Your task to perform on an android device: turn smart compose on in the gmail app Image 0: 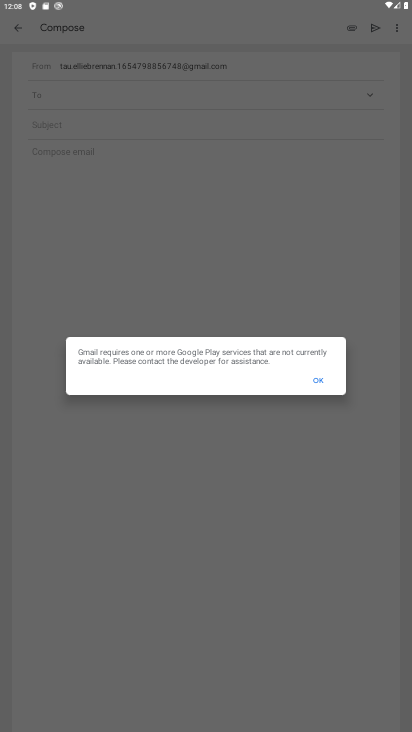
Step 0: press home button
Your task to perform on an android device: turn smart compose on in the gmail app Image 1: 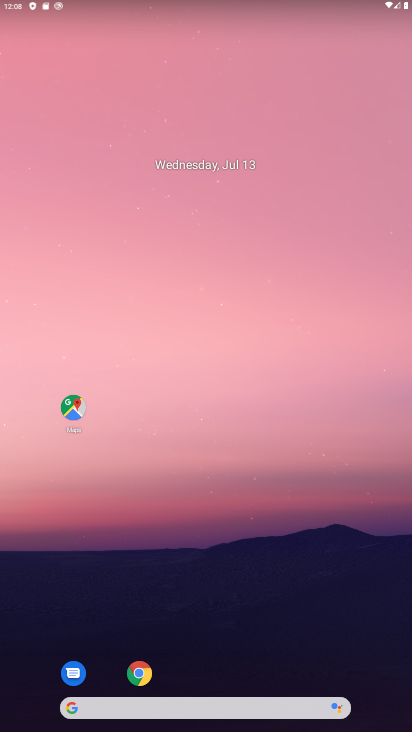
Step 1: drag from (289, 618) to (270, 255)
Your task to perform on an android device: turn smart compose on in the gmail app Image 2: 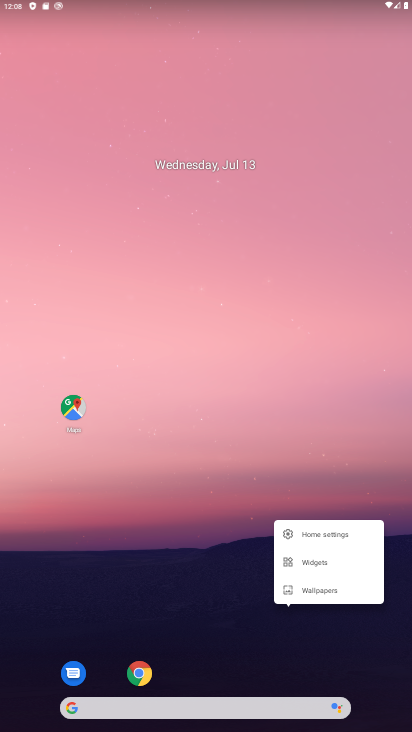
Step 2: click (230, 305)
Your task to perform on an android device: turn smart compose on in the gmail app Image 3: 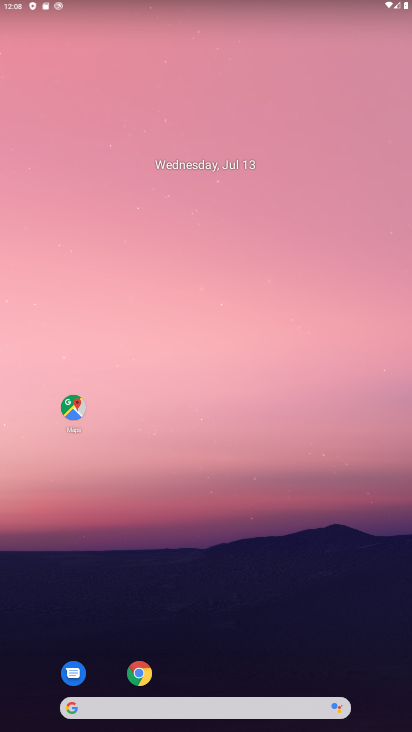
Step 3: drag from (220, 660) to (181, 140)
Your task to perform on an android device: turn smart compose on in the gmail app Image 4: 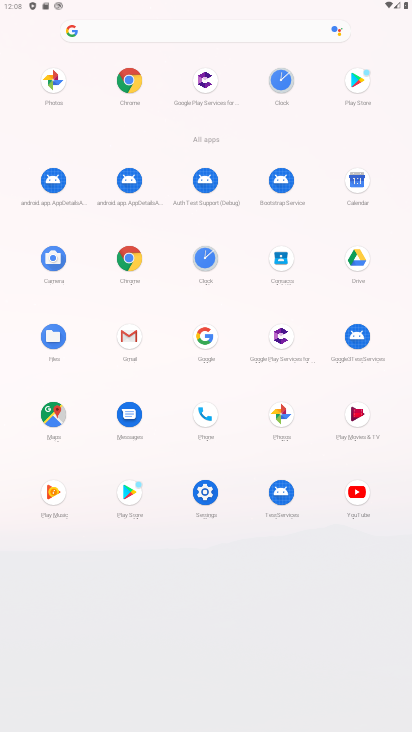
Step 4: click (211, 476)
Your task to perform on an android device: turn smart compose on in the gmail app Image 5: 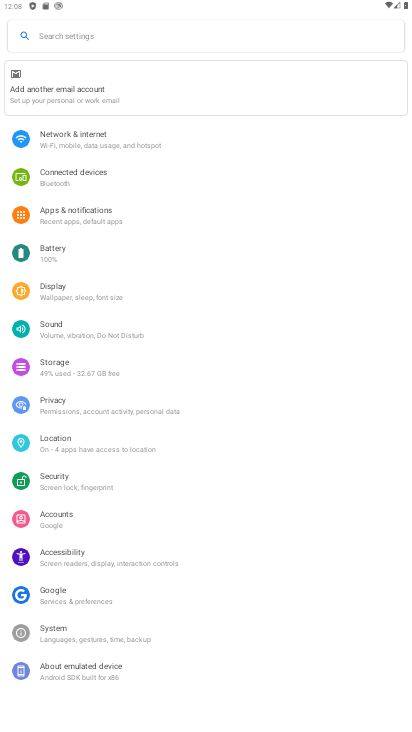
Step 5: press home button
Your task to perform on an android device: turn smart compose on in the gmail app Image 6: 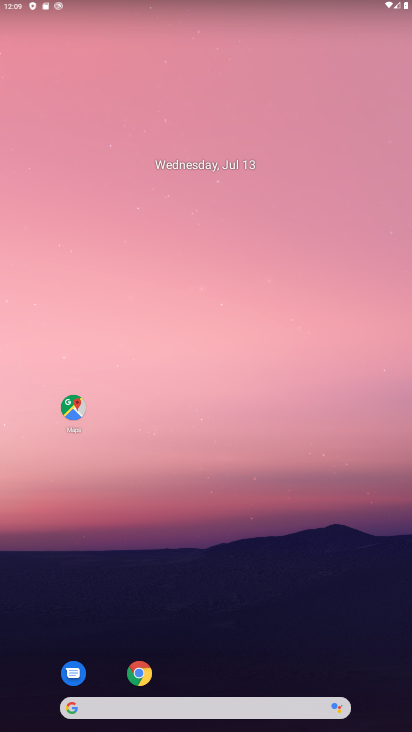
Step 6: drag from (278, 637) to (279, 70)
Your task to perform on an android device: turn smart compose on in the gmail app Image 7: 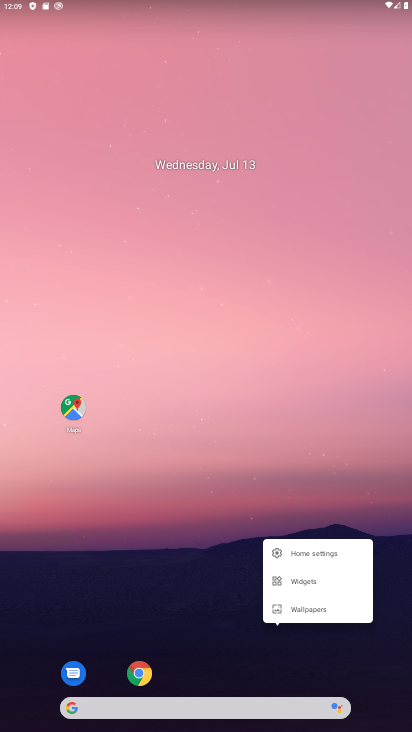
Step 7: click (204, 427)
Your task to perform on an android device: turn smart compose on in the gmail app Image 8: 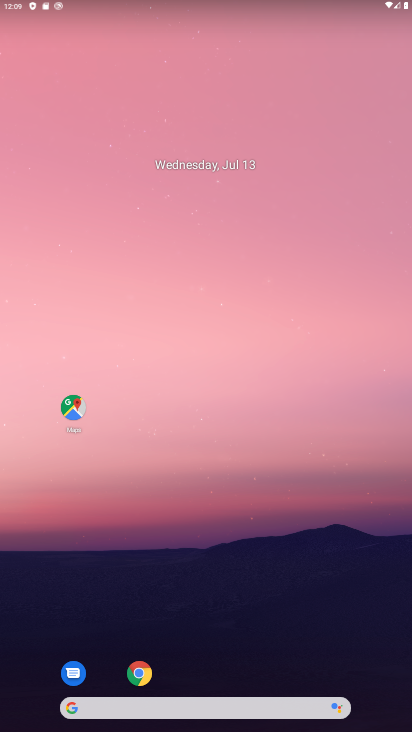
Step 8: drag from (265, 645) to (280, 249)
Your task to perform on an android device: turn smart compose on in the gmail app Image 9: 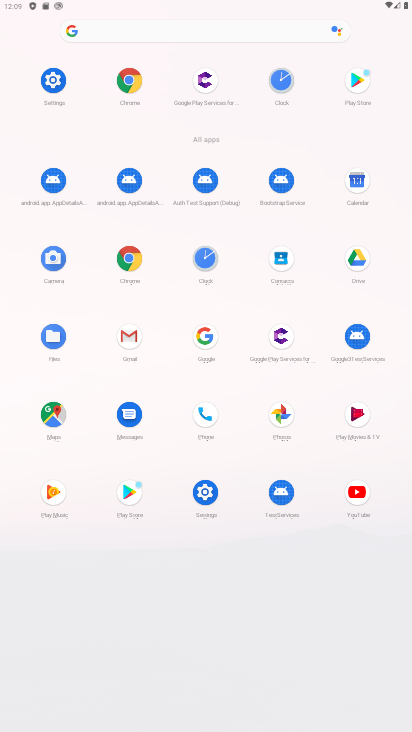
Step 9: click (127, 362)
Your task to perform on an android device: turn smart compose on in the gmail app Image 10: 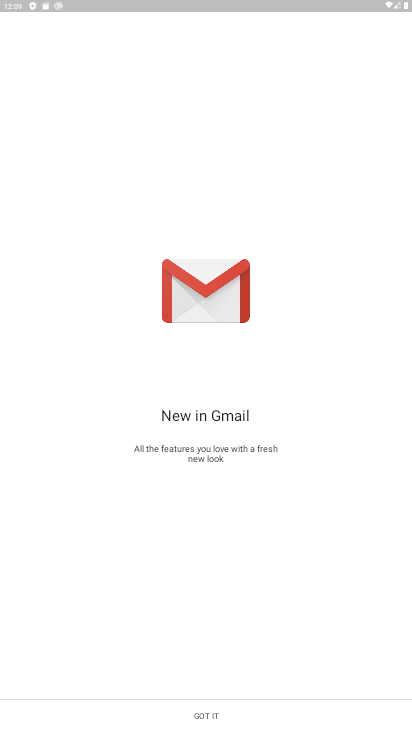
Step 10: click (227, 713)
Your task to perform on an android device: turn smart compose on in the gmail app Image 11: 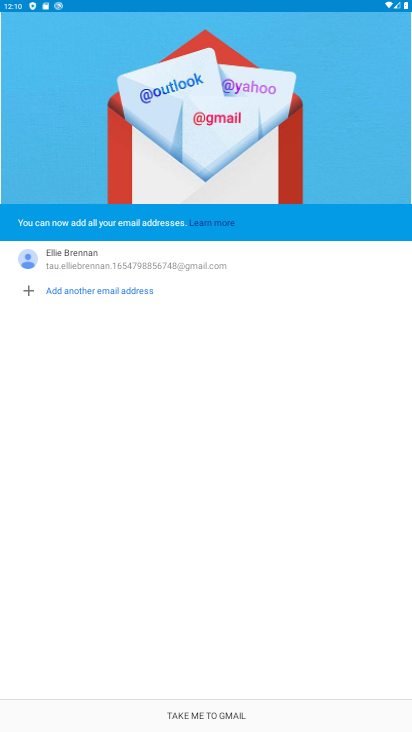
Step 11: click (237, 703)
Your task to perform on an android device: turn smart compose on in the gmail app Image 12: 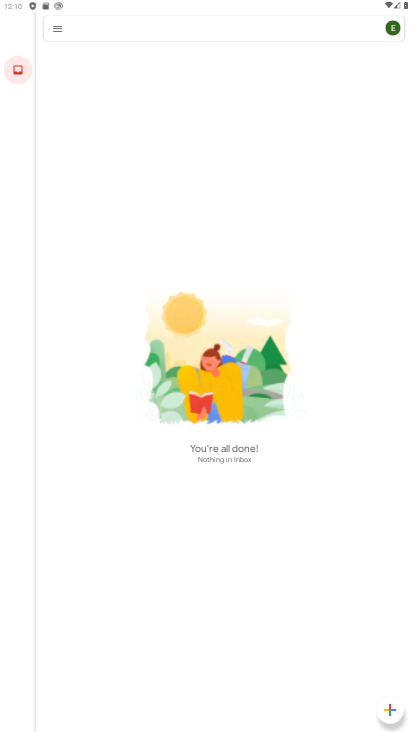
Step 12: click (54, 32)
Your task to perform on an android device: turn smart compose on in the gmail app Image 13: 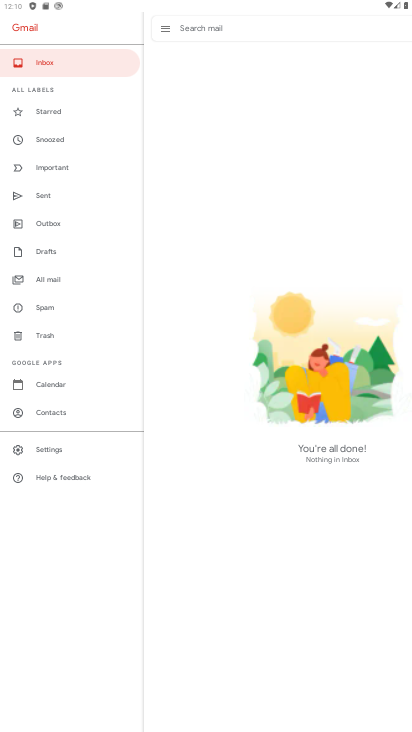
Step 13: click (60, 456)
Your task to perform on an android device: turn smart compose on in the gmail app Image 14: 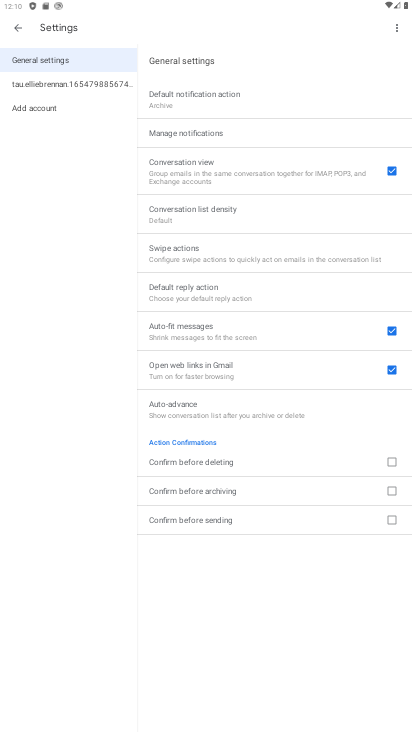
Step 14: click (87, 97)
Your task to perform on an android device: turn smart compose on in the gmail app Image 15: 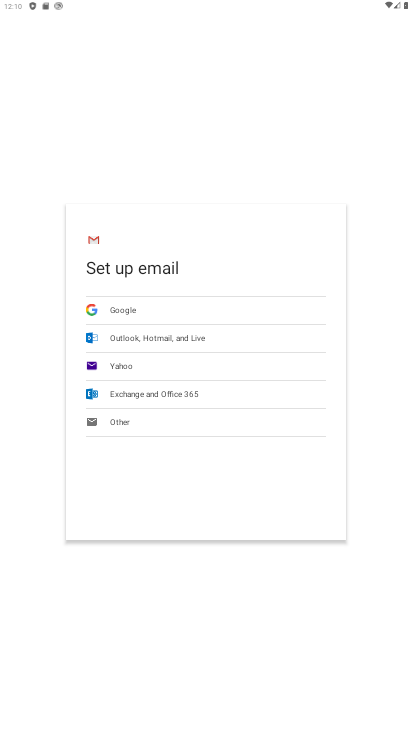
Step 15: press back button
Your task to perform on an android device: turn smart compose on in the gmail app Image 16: 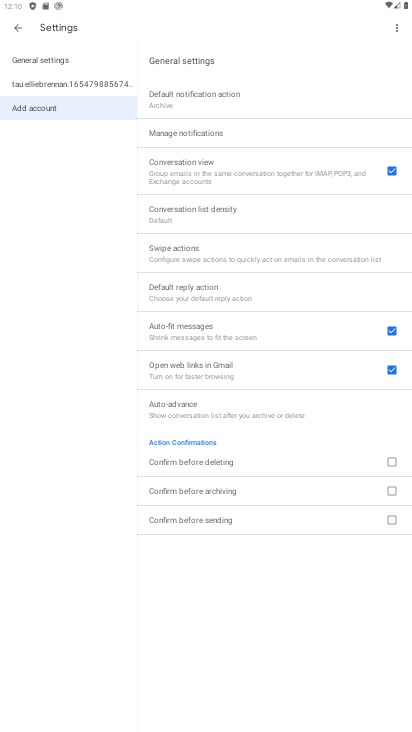
Step 16: click (66, 86)
Your task to perform on an android device: turn smart compose on in the gmail app Image 17: 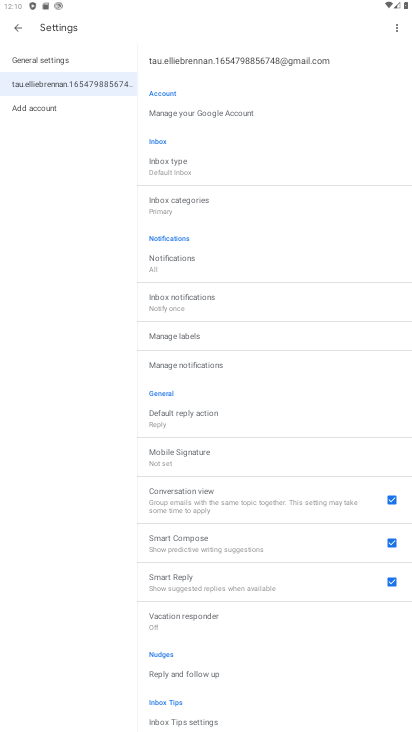
Step 17: task complete